Your task to perform on an android device: open chrome and create a bookmark for the current page Image 0: 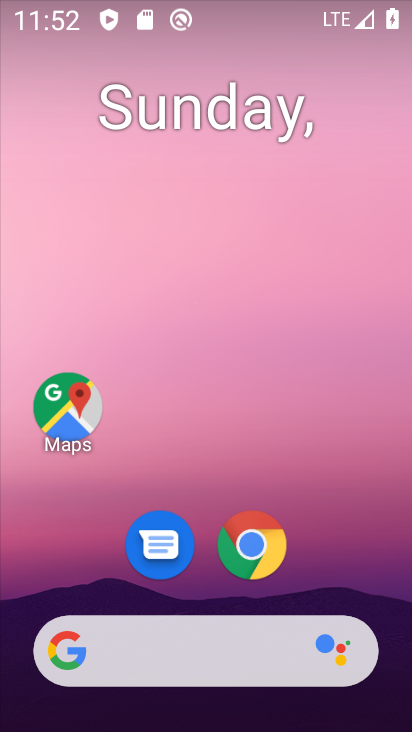
Step 0: drag from (374, 588) to (375, 212)
Your task to perform on an android device: open chrome and create a bookmark for the current page Image 1: 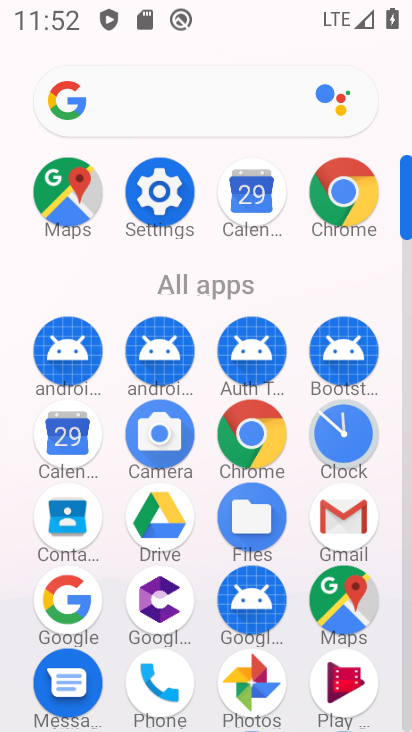
Step 1: click (253, 441)
Your task to perform on an android device: open chrome and create a bookmark for the current page Image 2: 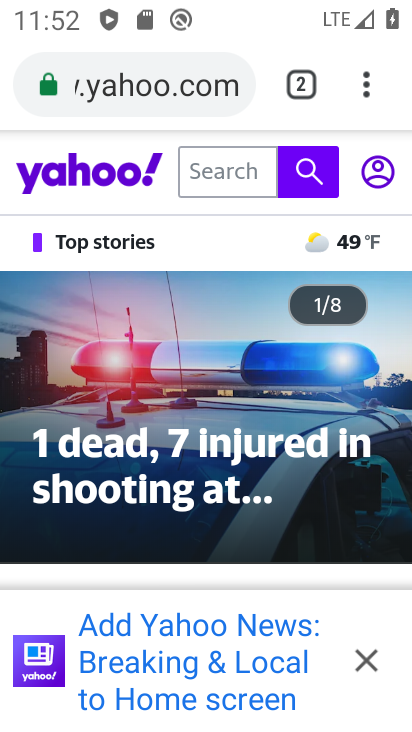
Step 2: click (372, 94)
Your task to perform on an android device: open chrome and create a bookmark for the current page Image 3: 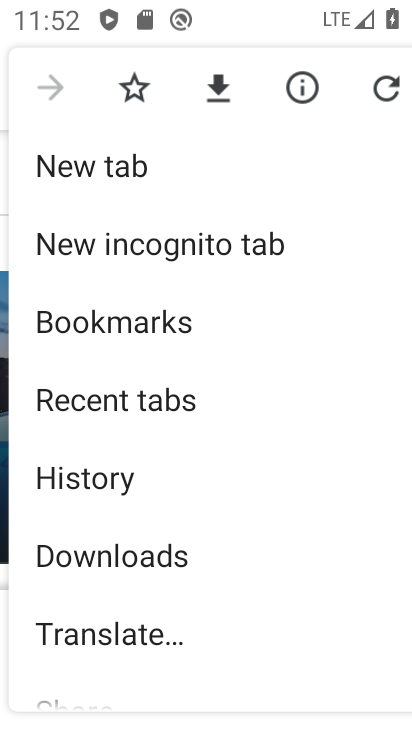
Step 3: click (138, 92)
Your task to perform on an android device: open chrome and create a bookmark for the current page Image 4: 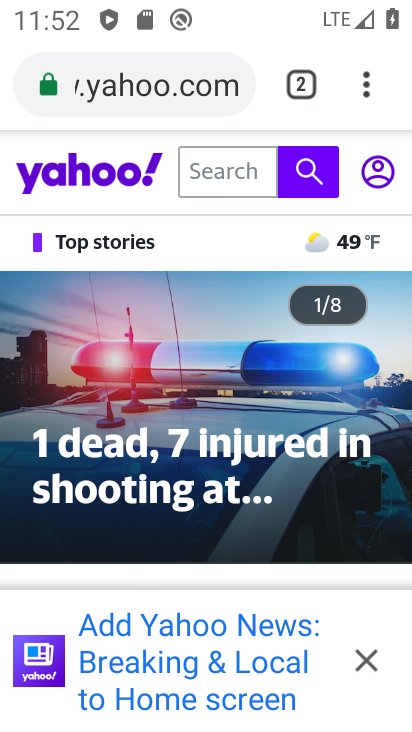
Step 4: task complete